Your task to perform on an android device: Open battery settings Image 0: 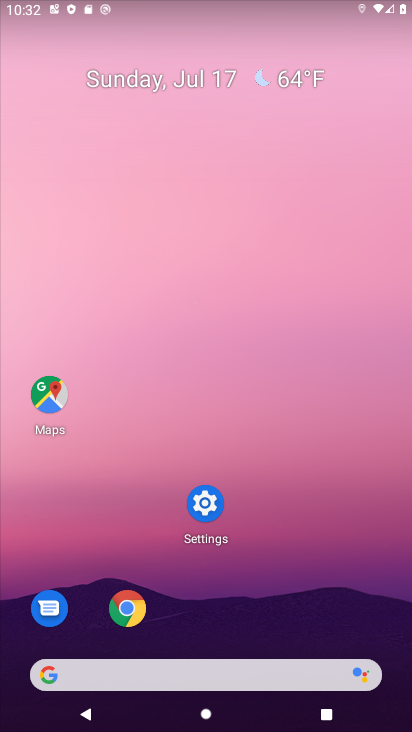
Step 0: click (214, 512)
Your task to perform on an android device: Open battery settings Image 1: 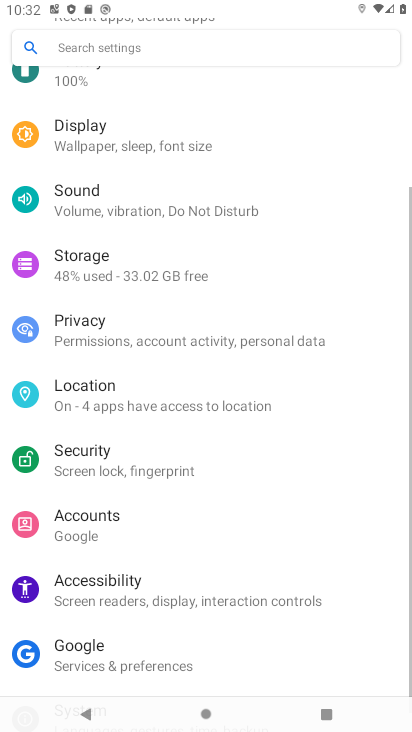
Step 1: click (54, 152)
Your task to perform on an android device: Open battery settings Image 2: 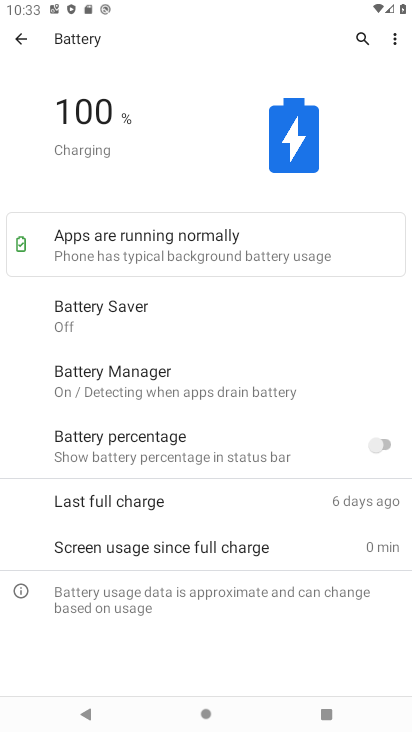
Step 2: task complete